Your task to perform on an android device: Open Chrome and go to settings Image 0: 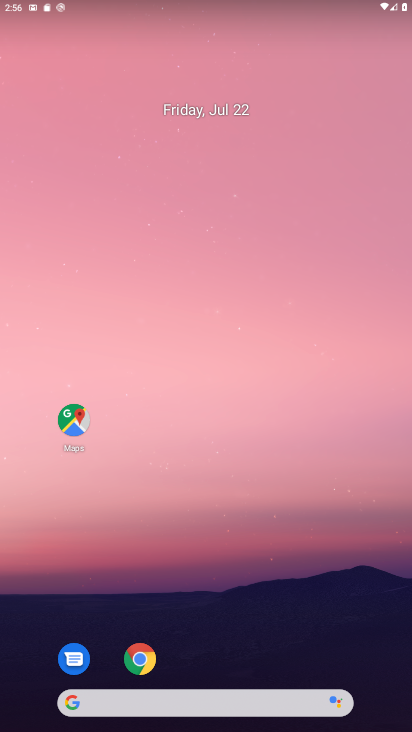
Step 0: click (139, 649)
Your task to perform on an android device: Open Chrome and go to settings Image 1: 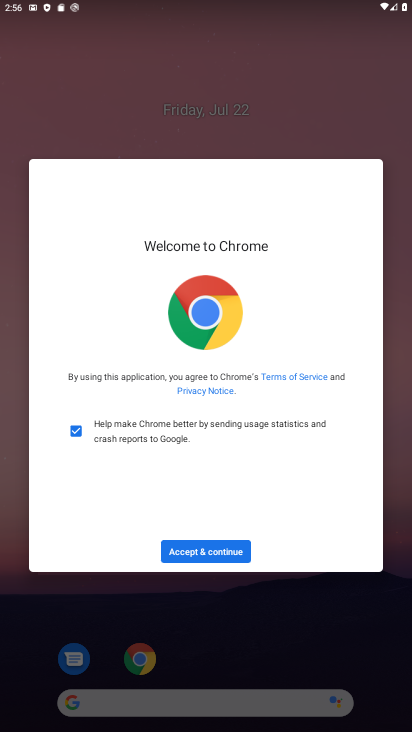
Step 1: click (203, 540)
Your task to perform on an android device: Open Chrome and go to settings Image 2: 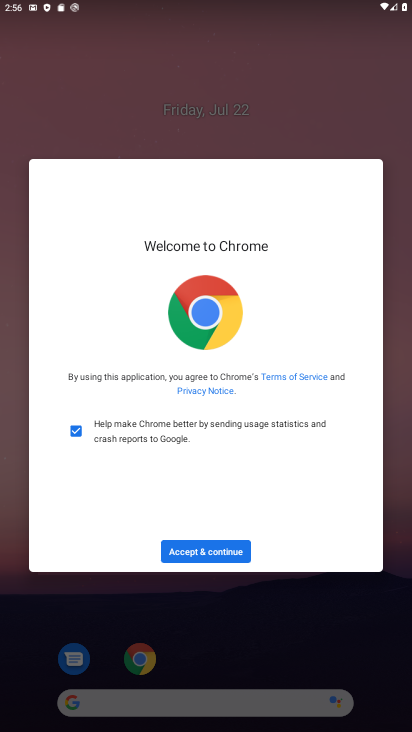
Step 2: click (203, 540)
Your task to perform on an android device: Open Chrome and go to settings Image 3: 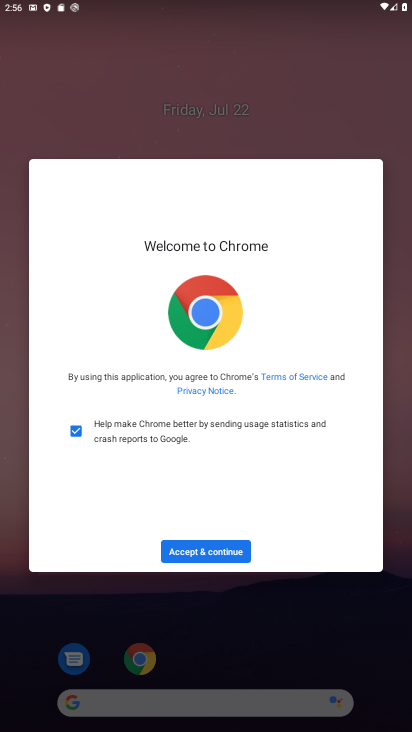
Step 3: click (206, 545)
Your task to perform on an android device: Open Chrome and go to settings Image 4: 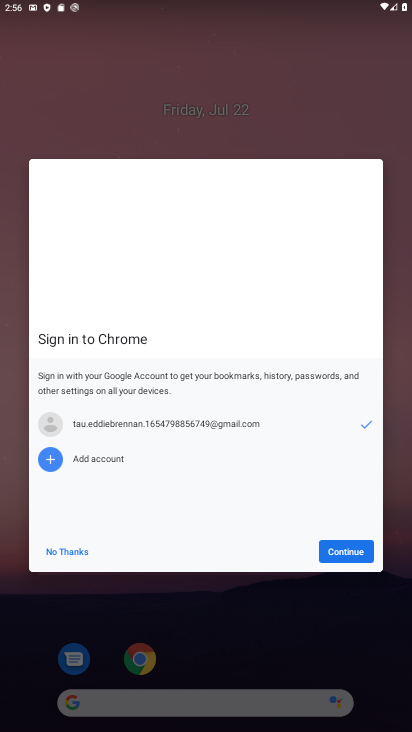
Step 4: click (336, 550)
Your task to perform on an android device: Open Chrome and go to settings Image 5: 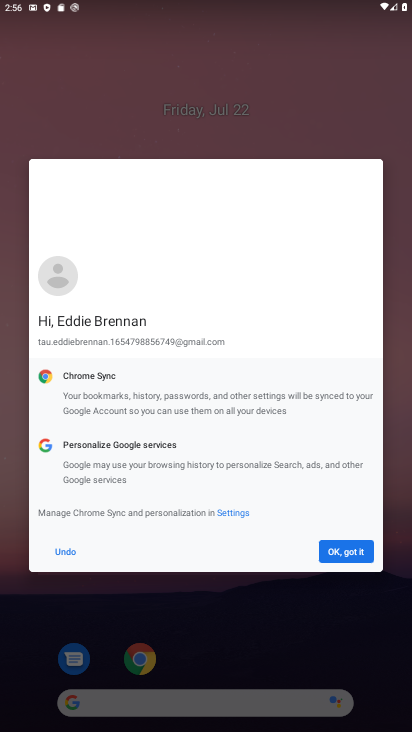
Step 5: click (336, 550)
Your task to perform on an android device: Open Chrome and go to settings Image 6: 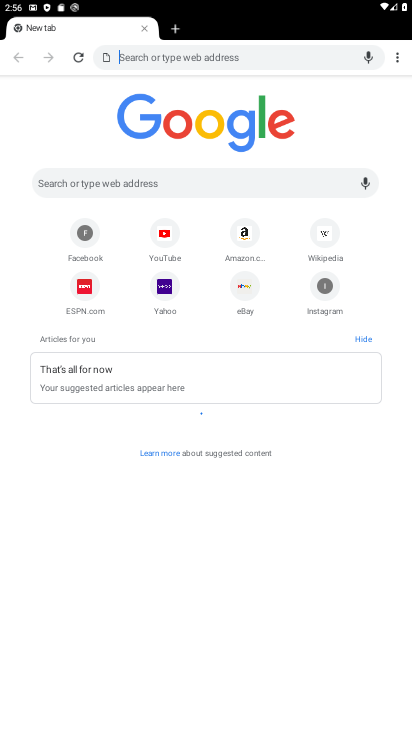
Step 6: click (399, 56)
Your task to perform on an android device: Open Chrome and go to settings Image 7: 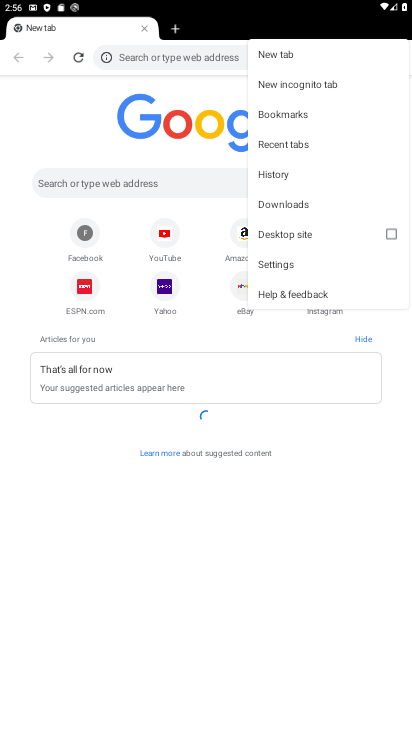
Step 7: click (399, 56)
Your task to perform on an android device: Open Chrome and go to settings Image 8: 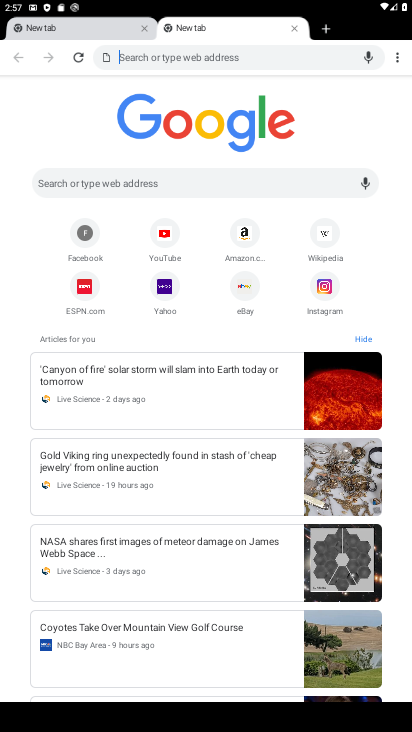
Step 8: click (390, 60)
Your task to perform on an android device: Open Chrome and go to settings Image 9: 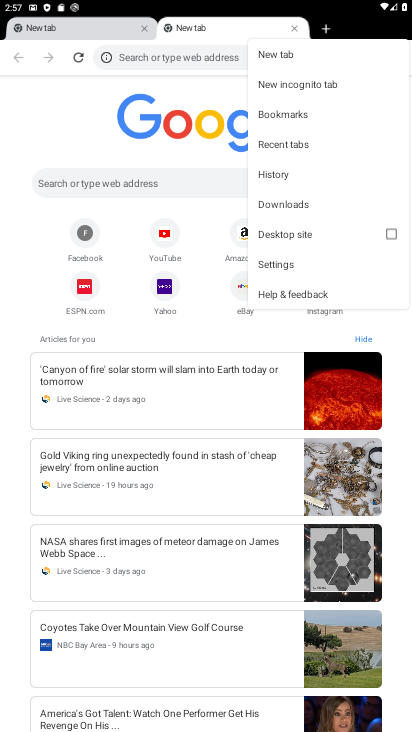
Step 9: click (315, 267)
Your task to perform on an android device: Open Chrome and go to settings Image 10: 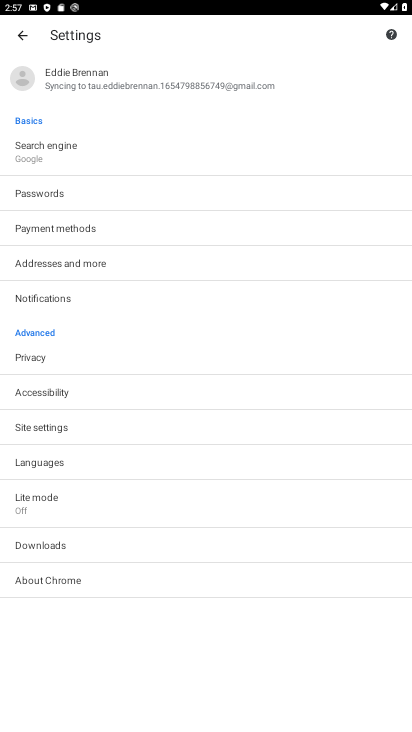
Step 10: task complete